Your task to perform on an android device: Google the capital of Peru Image 0: 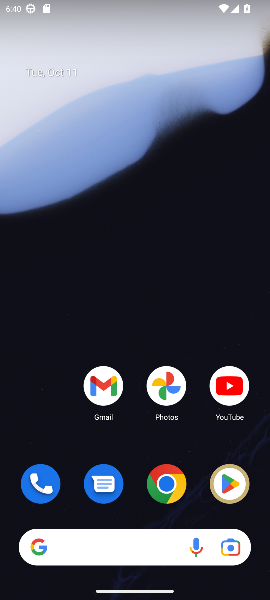
Step 0: click (168, 484)
Your task to perform on an android device: Google the capital of Peru Image 1: 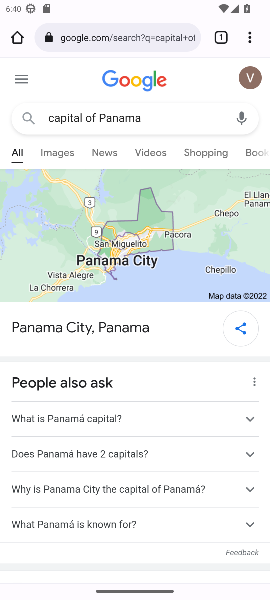
Step 1: click (158, 40)
Your task to perform on an android device: Google the capital of Peru Image 2: 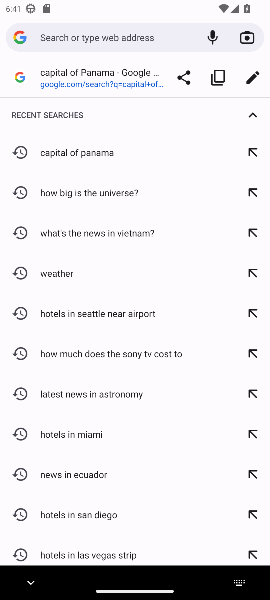
Step 2: type "capital of Peru"
Your task to perform on an android device: Google the capital of Peru Image 3: 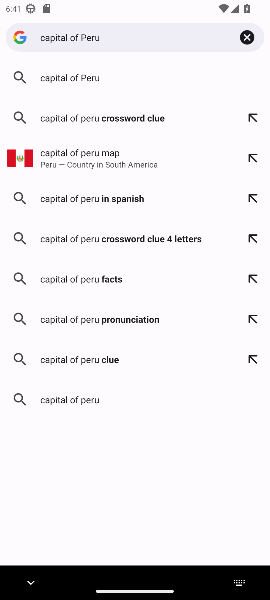
Step 3: click (68, 79)
Your task to perform on an android device: Google the capital of Peru Image 4: 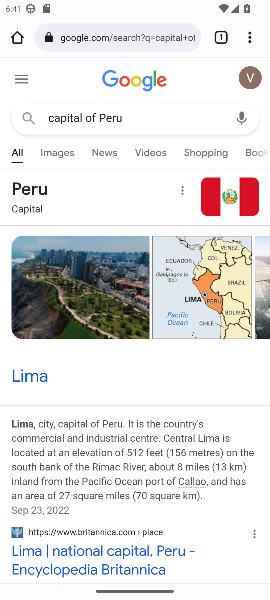
Step 4: task complete